Your task to perform on an android device: toggle show notifications on the lock screen Image 0: 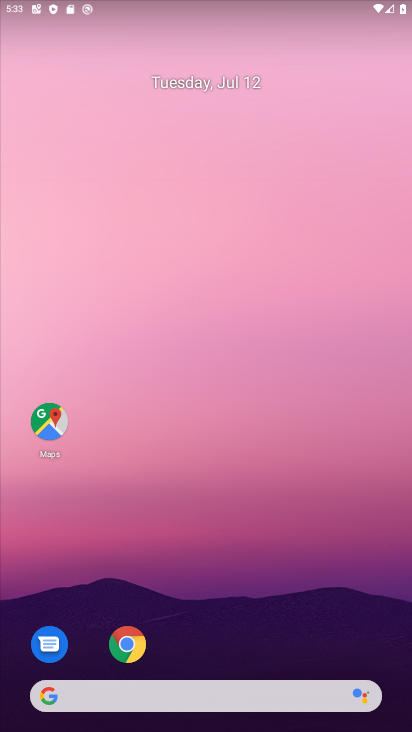
Step 0: drag from (258, 463) to (236, 41)
Your task to perform on an android device: toggle show notifications on the lock screen Image 1: 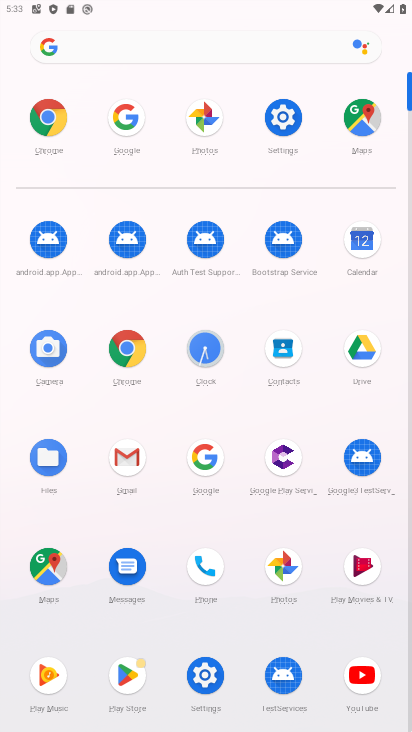
Step 1: click (195, 667)
Your task to perform on an android device: toggle show notifications on the lock screen Image 2: 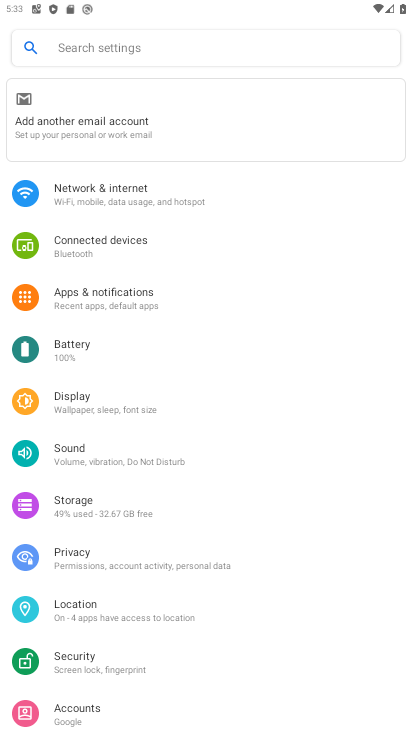
Step 2: click (97, 307)
Your task to perform on an android device: toggle show notifications on the lock screen Image 3: 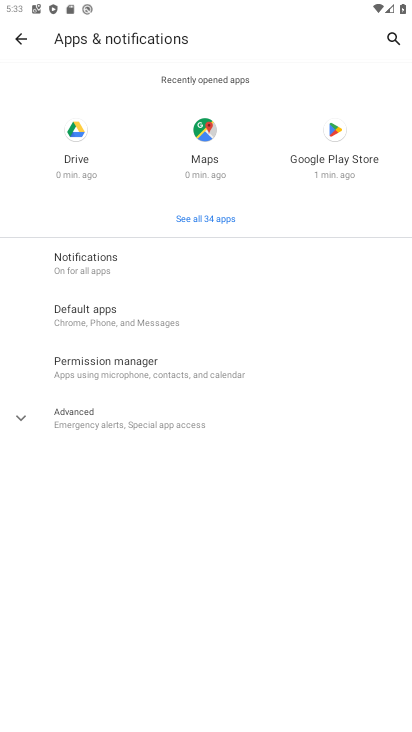
Step 3: click (126, 277)
Your task to perform on an android device: toggle show notifications on the lock screen Image 4: 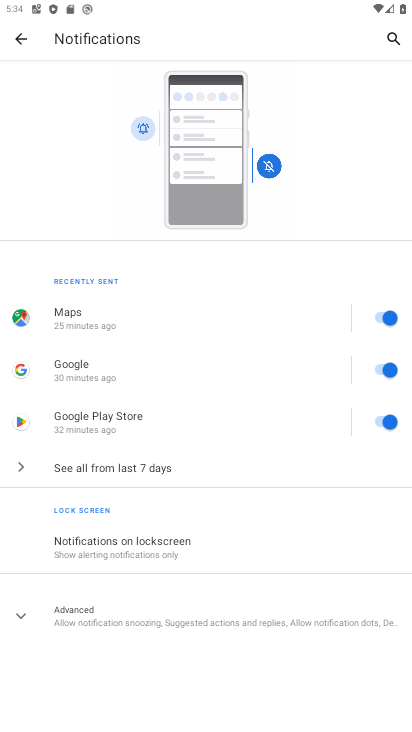
Step 4: click (148, 544)
Your task to perform on an android device: toggle show notifications on the lock screen Image 5: 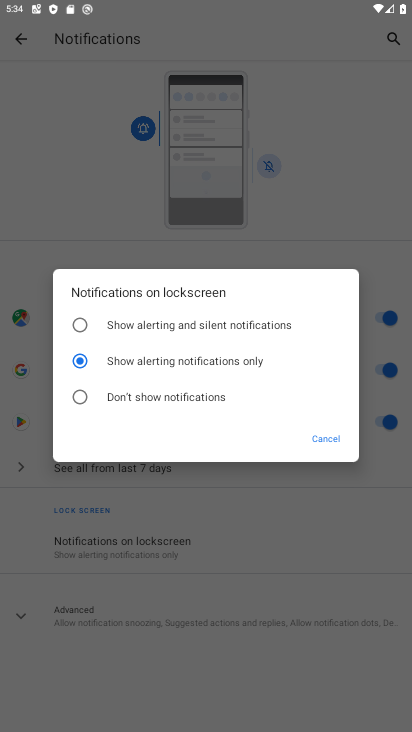
Step 5: click (281, 328)
Your task to perform on an android device: toggle show notifications on the lock screen Image 6: 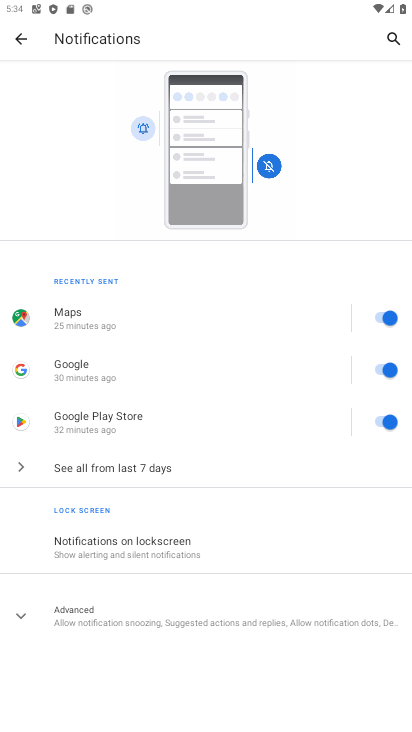
Step 6: task complete